Your task to perform on an android device: Go to network settings Image 0: 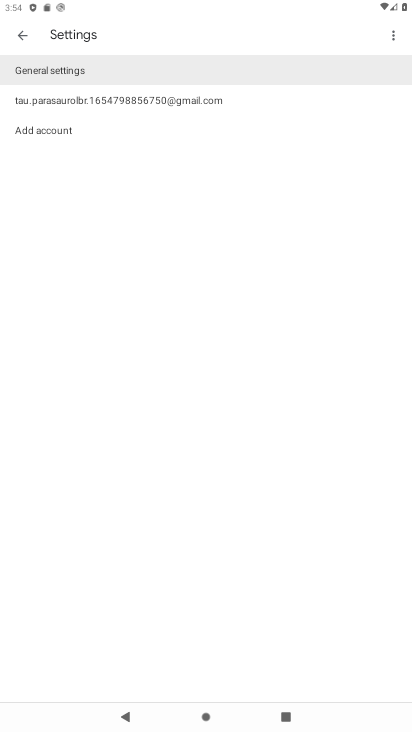
Step 0: press home button
Your task to perform on an android device: Go to network settings Image 1: 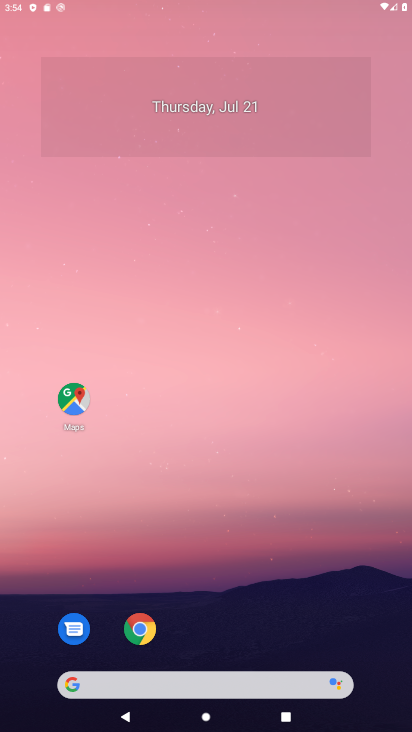
Step 1: drag from (227, 584) to (203, 159)
Your task to perform on an android device: Go to network settings Image 2: 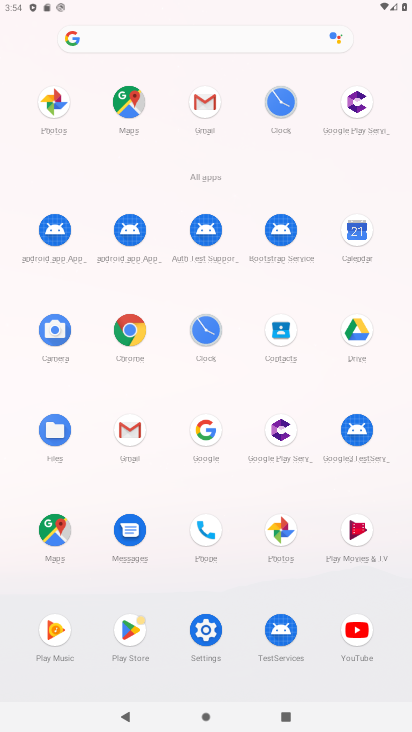
Step 2: click (201, 634)
Your task to perform on an android device: Go to network settings Image 3: 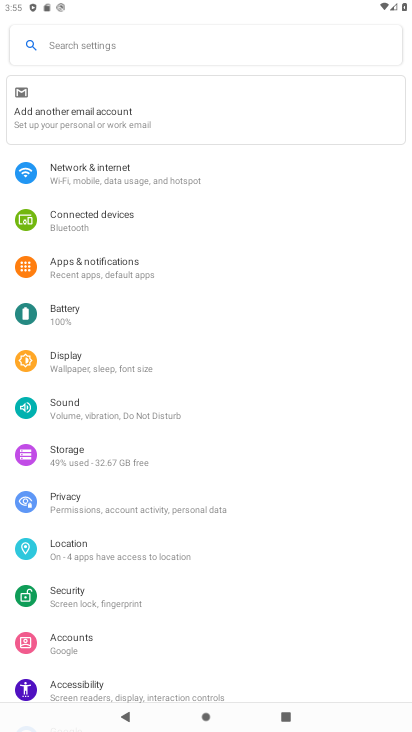
Step 3: click (137, 177)
Your task to perform on an android device: Go to network settings Image 4: 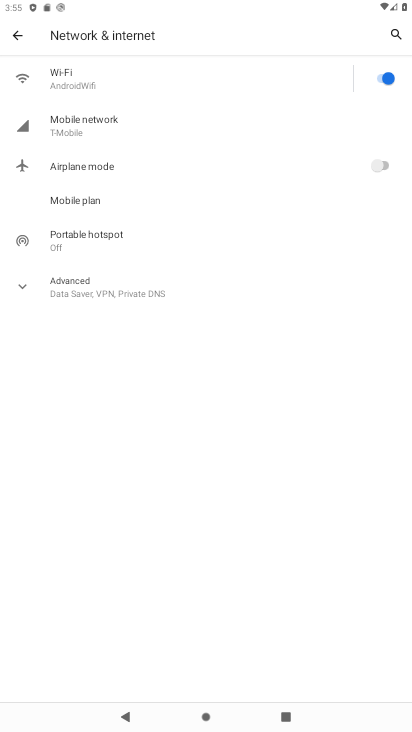
Step 4: task complete